Your task to perform on an android device: turn pop-ups on in chrome Image 0: 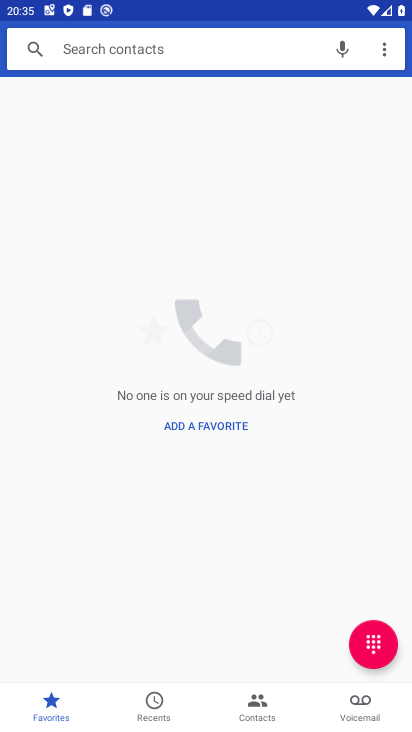
Step 0: press home button
Your task to perform on an android device: turn pop-ups on in chrome Image 1: 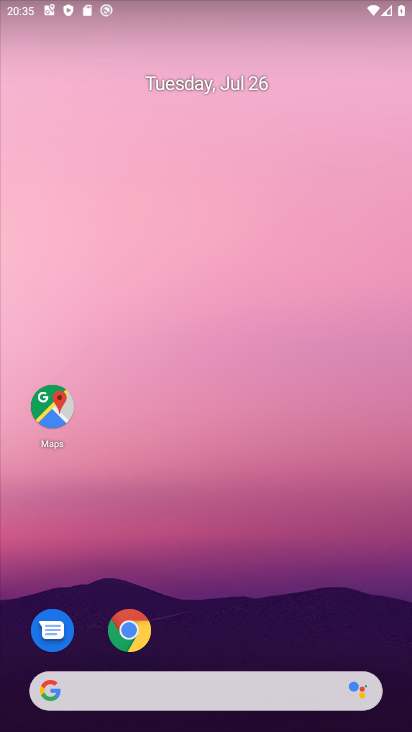
Step 1: click (132, 643)
Your task to perform on an android device: turn pop-ups on in chrome Image 2: 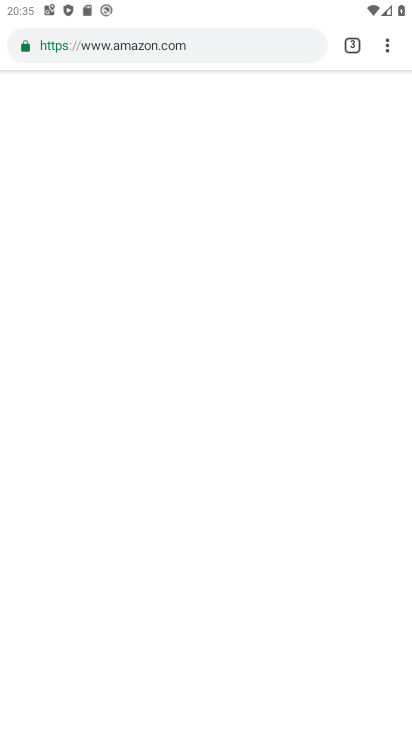
Step 2: click (385, 46)
Your task to perform on an android device: turn pop-ups on in chrome Image 3: 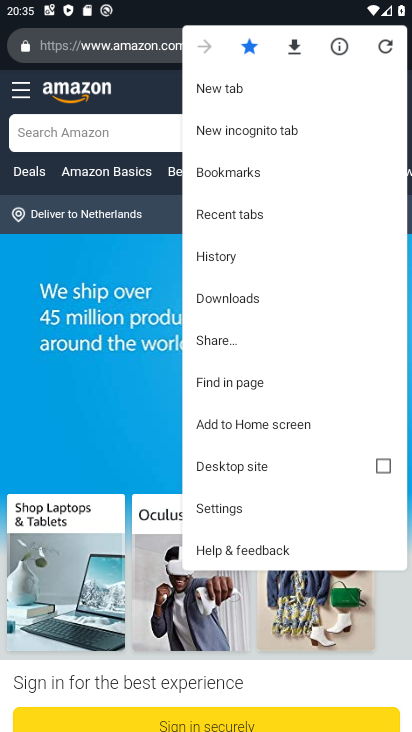
Step 3: click (213, 516)
Your task to perform on an android device: turn pop-ups on in chrome Image 4: 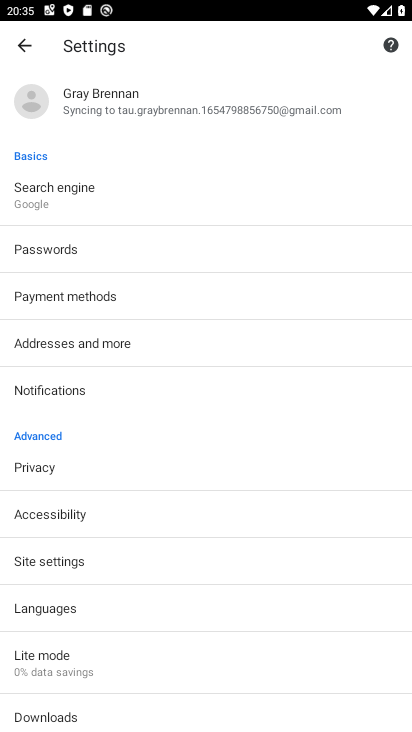
Step 4: click (161, 564)
Your task to perform on an android device: turn pop-ups on in chrome Image 5: 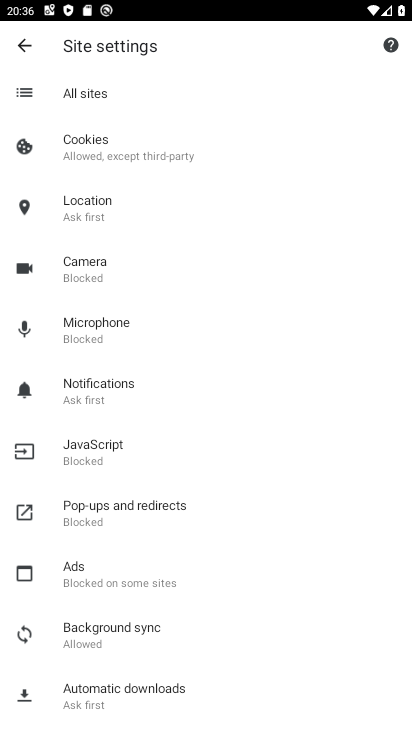
Step 5: click (148, 502)
Your task to perform on an android device: turn pop-ups on in chrome Image 6: 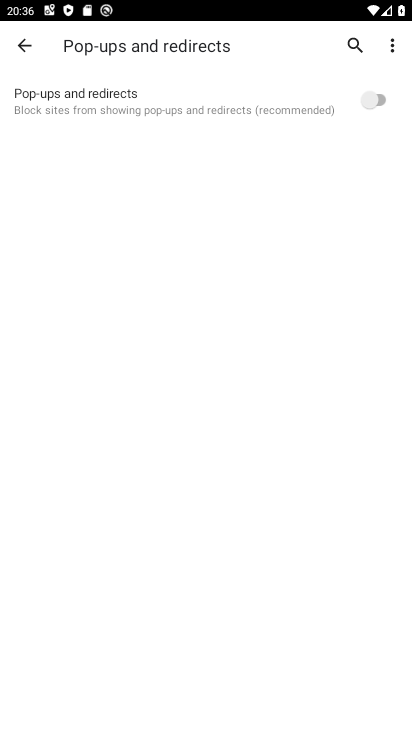
Step 6: click (377, 102)
Your task to perform on an android device: turn pop-ups on in chrome Image 7: 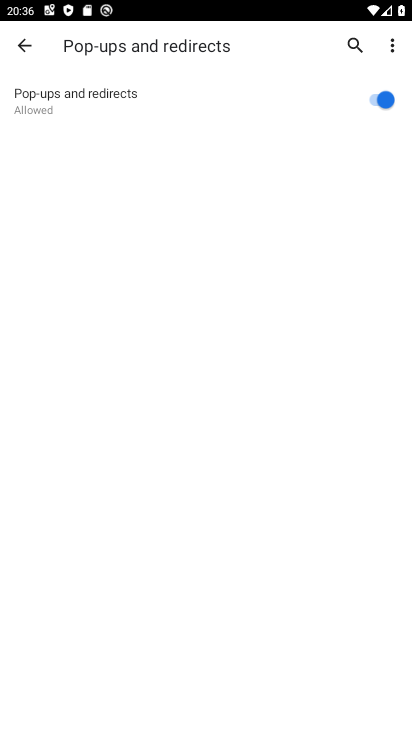
Step 7: task complete